Your task to perform on an android device: Go to wifi settings Image 0: 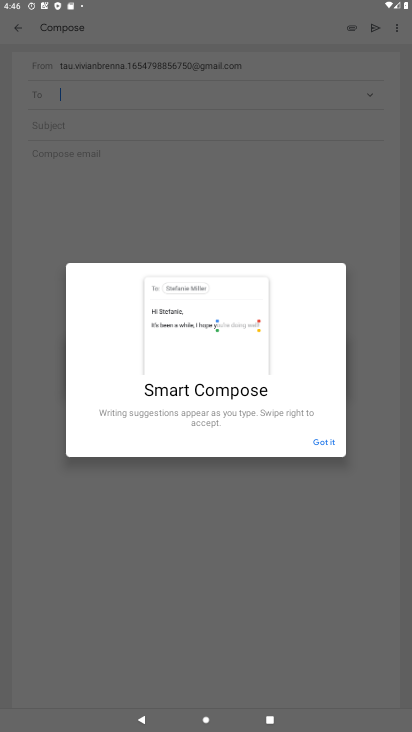
Step 0: press home button
Your task to perform on an android device: Go to wifi settings Image 1: 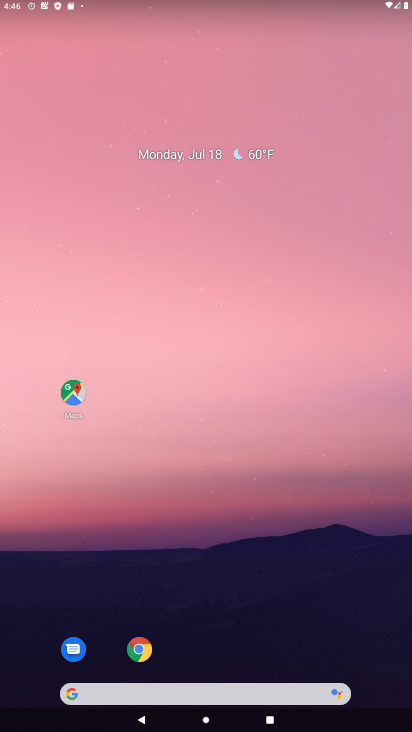
Step 1: drag from (221, 594) to (236, 3)
Your task to perform on an android device: Go to wifi settings Image 2: 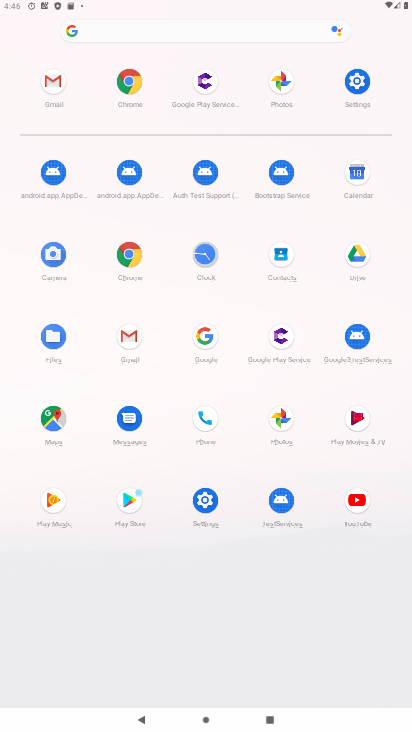
Step 2: click (360, 92)
Your task to perform on an android device: Go to wifi settings Image 3: 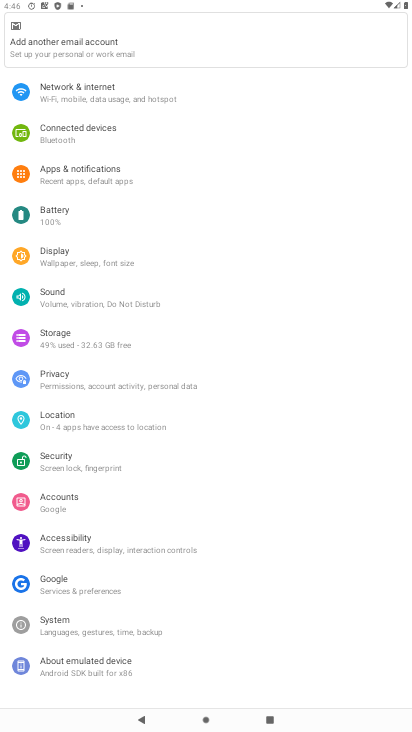
Step 3: drag from (117, 127) to (125, 555)
Your task to perform on an android device: Go to wifi settings Image 4: 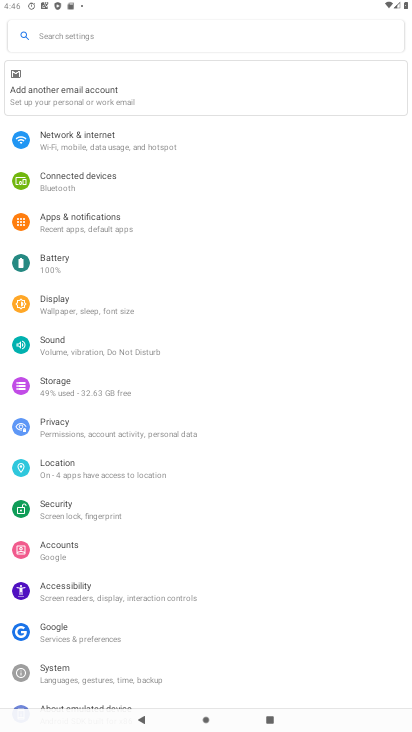
Step 4: click (112, 146)
Your task to perform on an android device: Go to wifi settings Image 5: 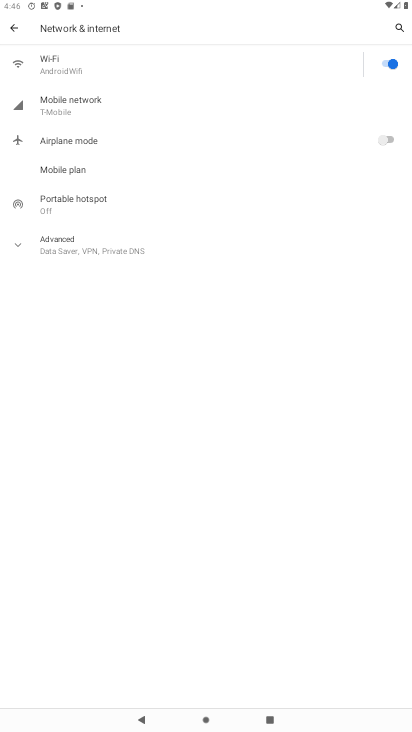
Step 5: click (74, 54)
Your task to perform on an android device: Go to wifi settings Image 6: 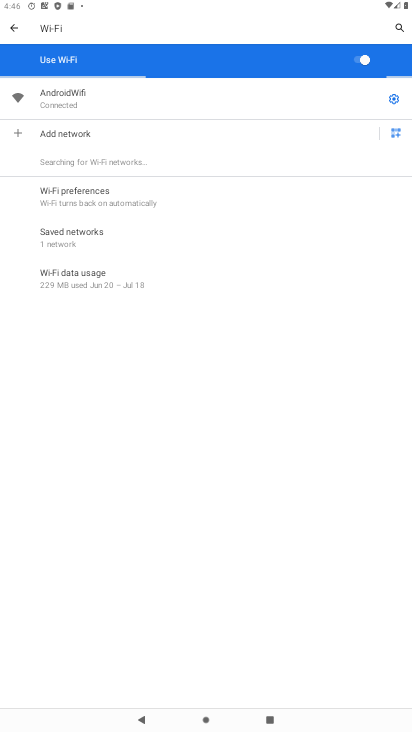
Step 6: task complete